Your task to perform on an android device: toggle pop-ups in chrome Image 0: 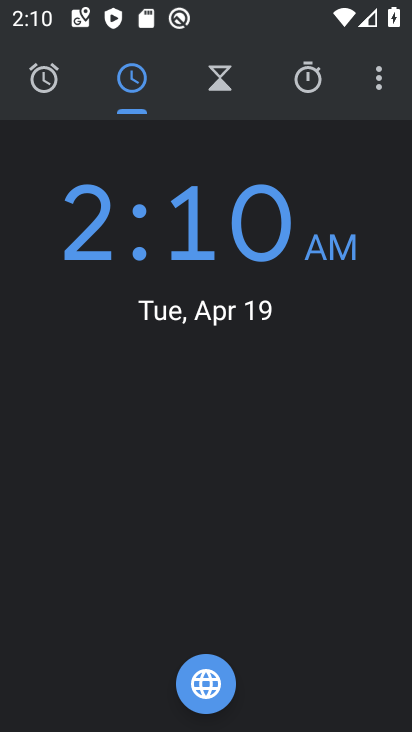
Step 0: press home button
Your task to perform on an android device: toggle pop-ups in chrome Image 1: 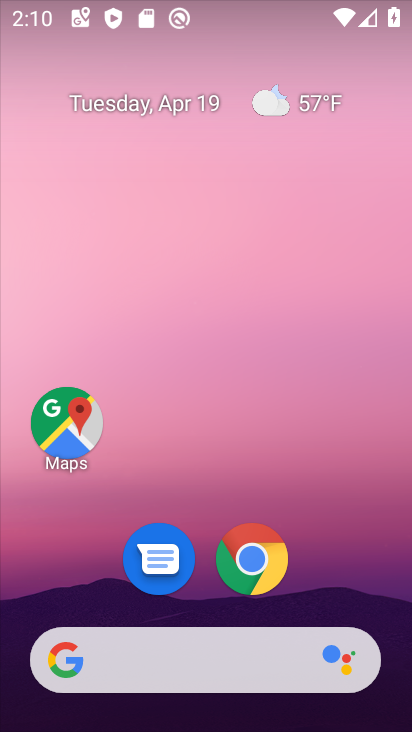
Step 1: drag from (205, 581) to (244, 50)
Your task to perform on an android device: toggle pop-ups in chrome Image 2: 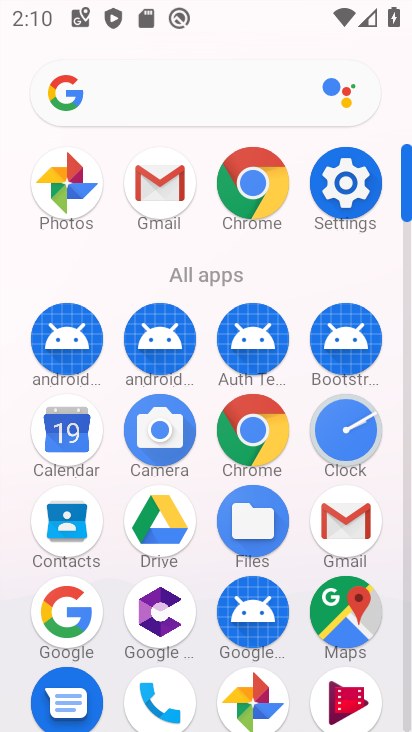
Step 2: click (250, 176)
Your task to perform on an android device: toggle pop-ups in chrome Image 3: 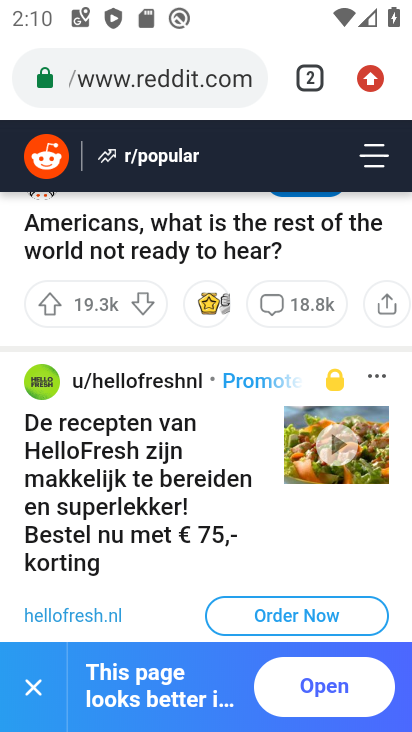
Step 3: click (300, 74)
Your task to perform on an android device: toggle pop-ups in chrome Image 4: 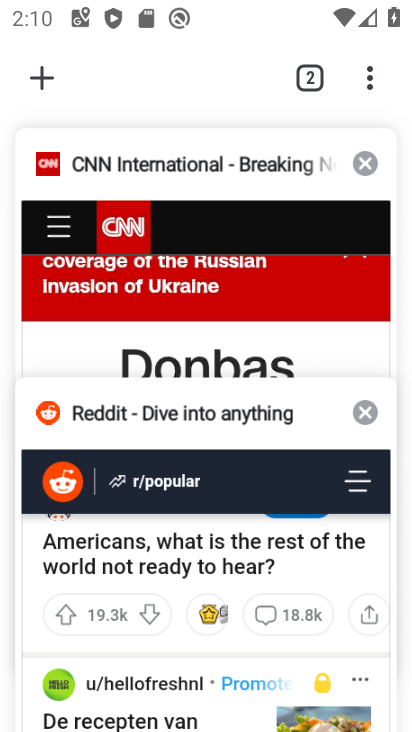
Step 4: click (368, 164)
Your task to perform on an android device: toggle pop-ups in chrome Image 5: 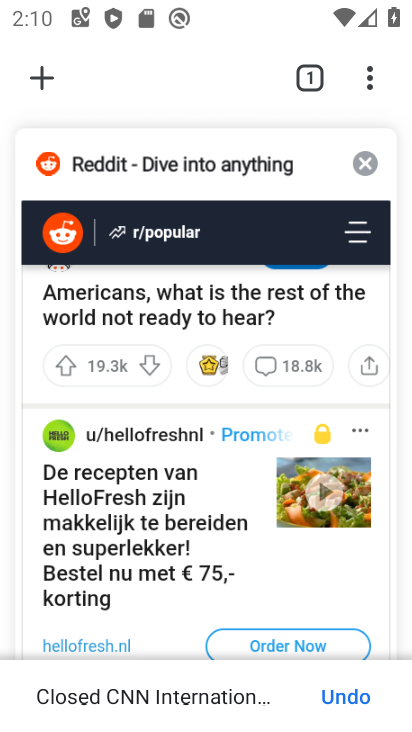
Step 5: click (364, 158)
Your task to perform on an android device: toggle pop-ups in chrome Image 6: 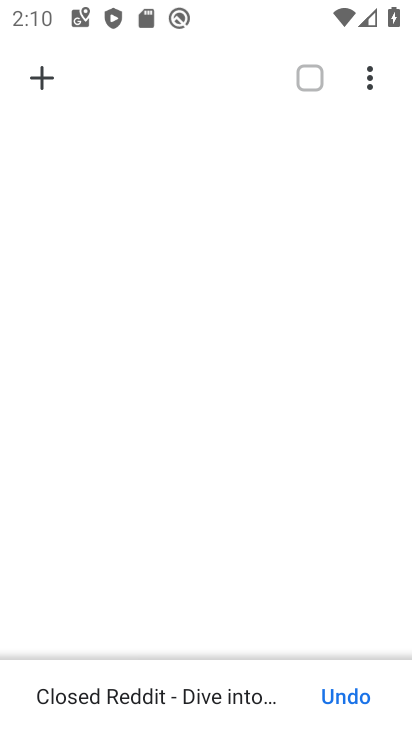
Step 6: click (46, 79)
Your task to perform on an android device: toggle pop-ups in chrome Image 7: 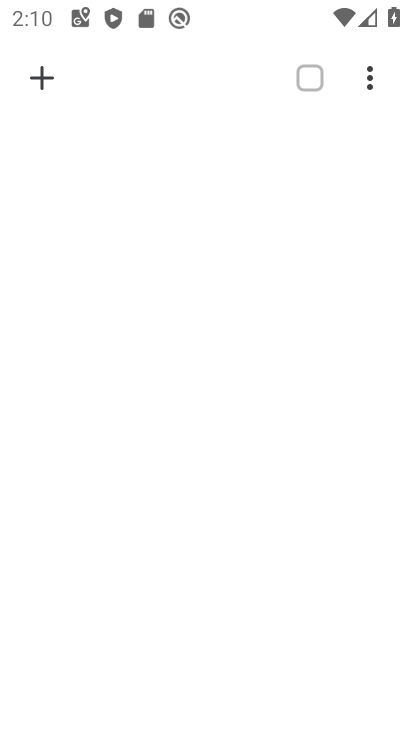
Step 7: click (49, 79)
Your task to perform on an android device: toggle pop-ups in chrome Image 8: 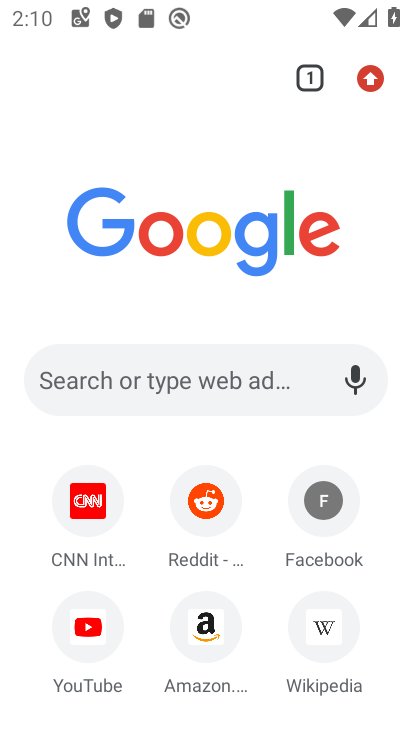
Step 8: click (367, 70)
Your task to perform on an android device: toggle pop-ups in chrome Image 9: 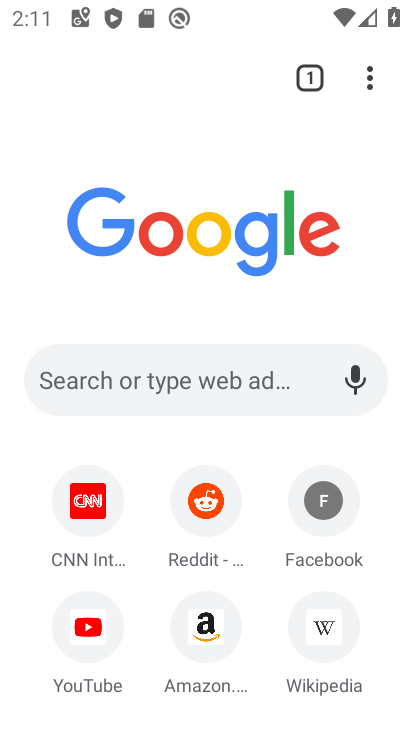
Step 9: click (370, 73)
Your task to perform on an android device: toggle pop-ups in chrome Image 10: 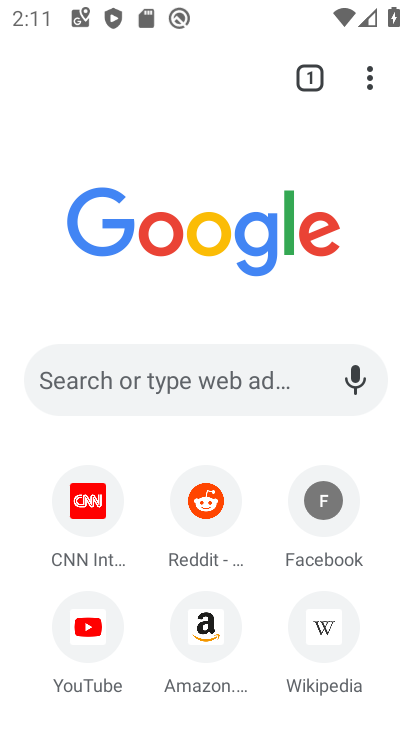
Step 10: drag from (259, 576) to (274, 53)
Your task to perform on an android device: toggle pop-ups in chrome Image 11: 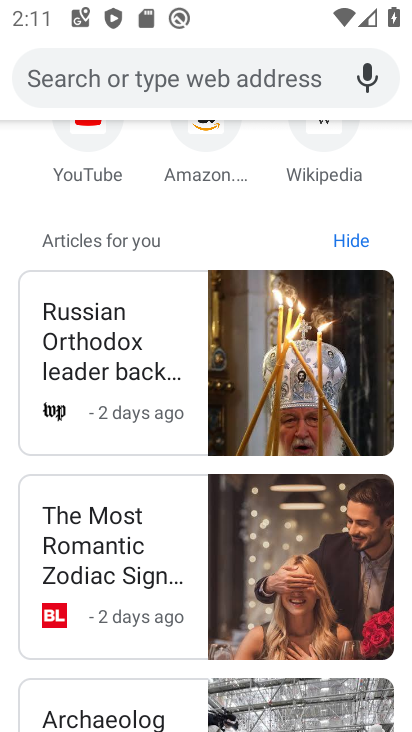
Step 11: drag from (266, 158) to (269, 697)
Your task to perform on an android device: toggle pop-ups in chrome Image 12: 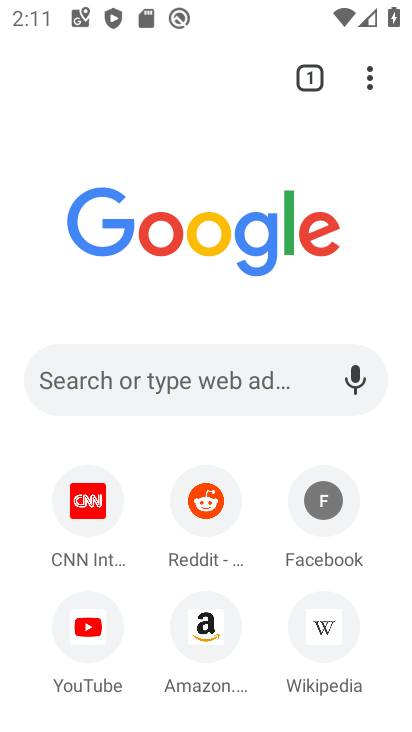
Step 12: click (362, 70)
Your task to perform on an android device: toggle pop-ups in chrome Image 13: 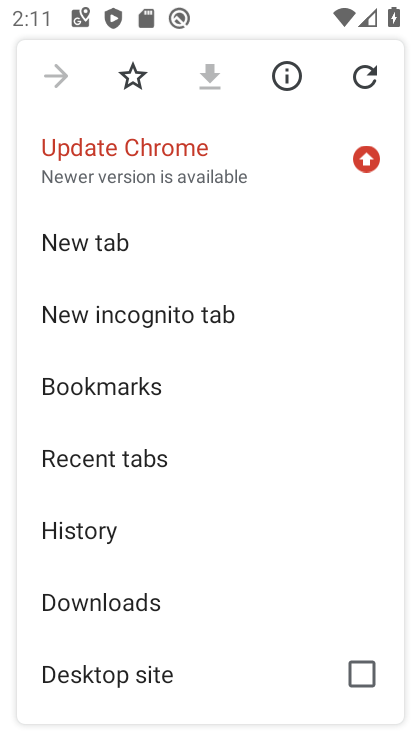
Step 13: drag from (190, 642) to (230, 106)
Your task to perform on an android device: toggle pop-ups in chrome Image 14: 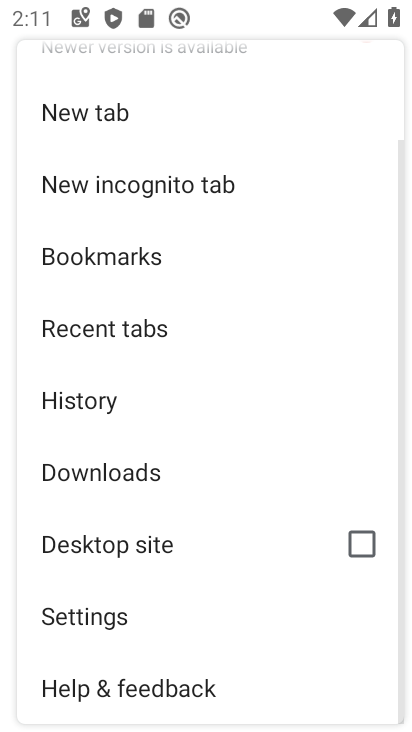
Step 14: click (141, 608)
Your task to perform on an android device: toggle pop-ups in chrome Image 15: 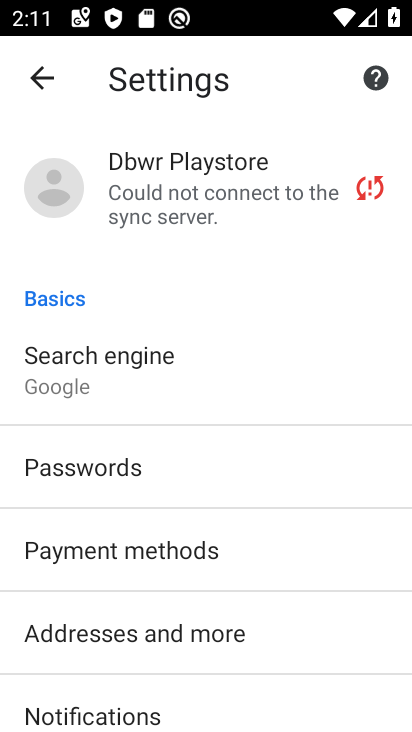
Step 15: drag from (259, 656) to (261, 164)
Your task to perform on an android device: toggle pop-ups in chrome Image 16: 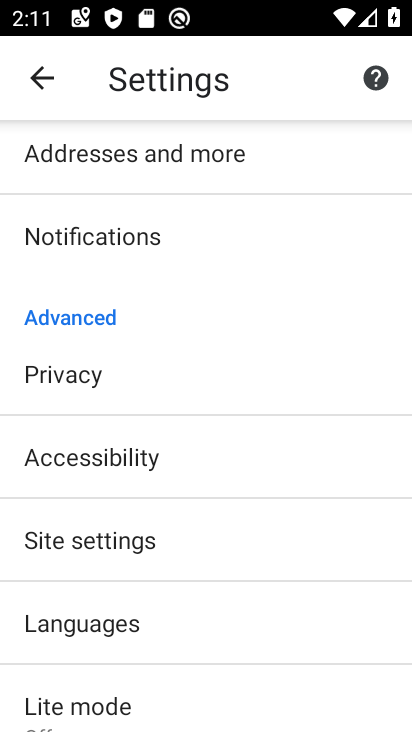
Step 16: click (174, 538)
Your task to perform on an android device: toggle pop-ups in chrome Image 17: 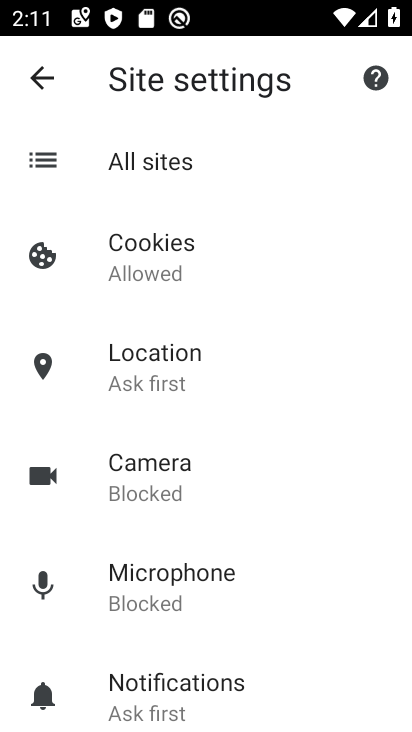
Step 17: drag from (265, 694) to (294, 161)
Your task to perform on an android device: toggle pop-ups in chrome Image 18: 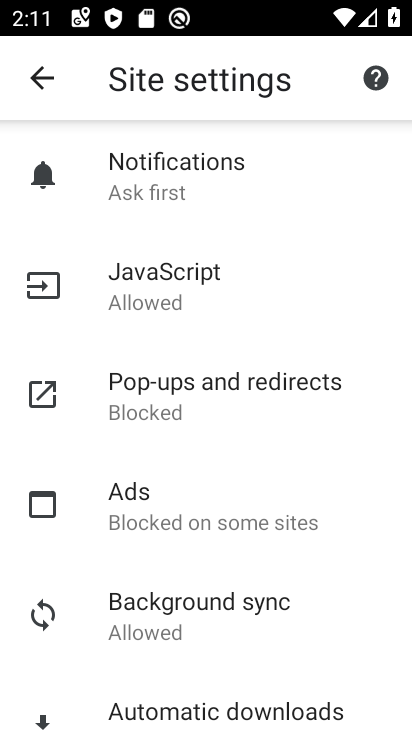
Step 18: click (199, 402)
Your task to perform on an android device: toggle pop-ups in chrome Image 19: 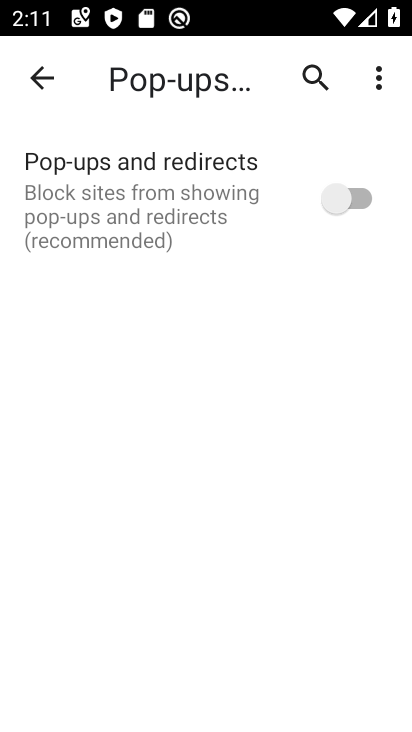
Step 19: click (354, 195)
Your task to perform on an android device: toggle pop-ups in chrome Image 20: 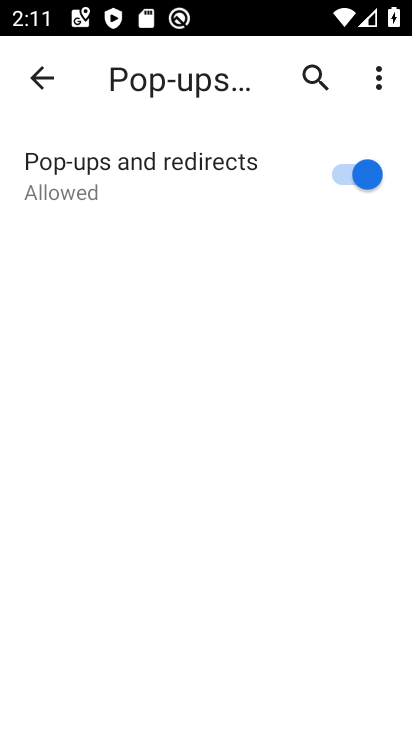
Step 20: task complete